Your task to perform on an android device: turn vacation reply on in the gmail app Image 0: 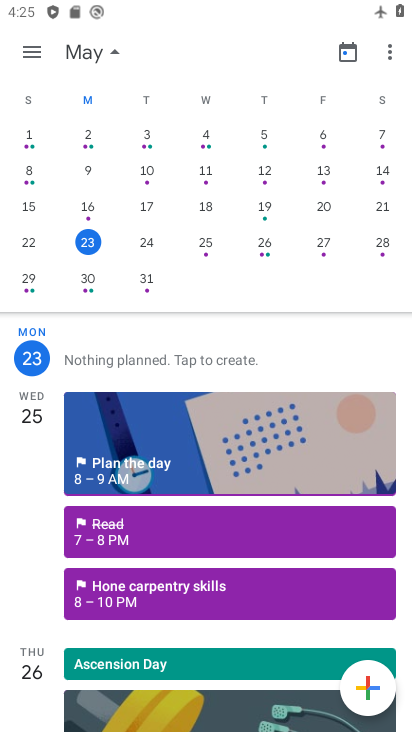
Step 0: press home button
Your task to perform on an android device: turn vacation reply on in the gmail app Image 1: 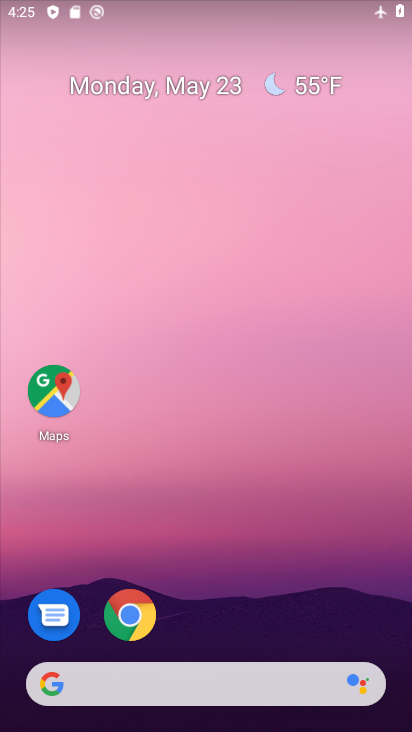
Step 1: drag from (385, 640) to (369, 579)
Your task to perform on an android device: turn vacation reply on in the gmail app Image 2: 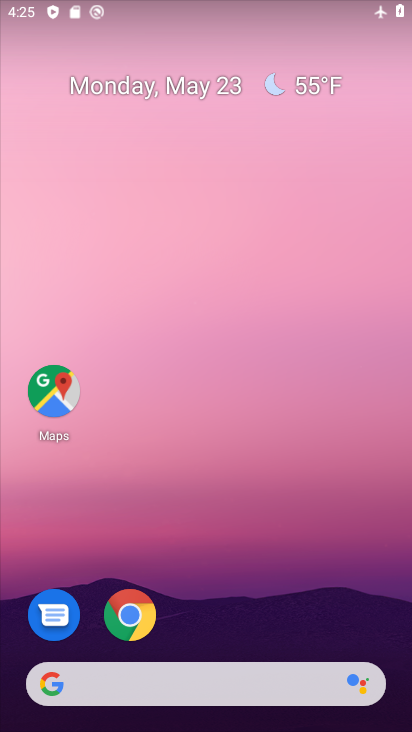
Step 2: drag from (345, 592) to (347, 190)
Your task to perform on an android device: turn vacation reply on in the gmail app Image 3: 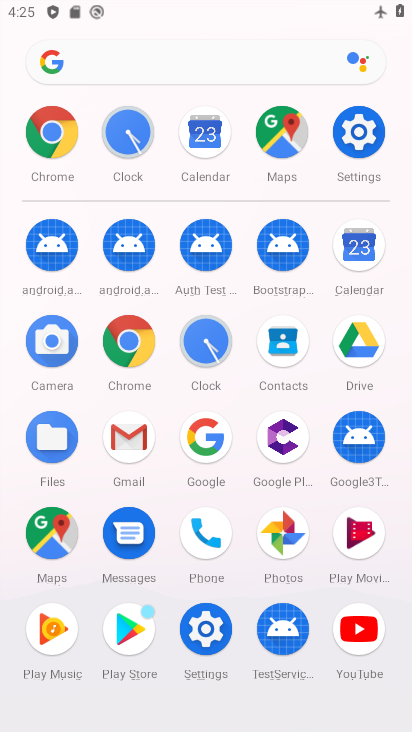
Step 3: click (125, 459)
Your task to perform on an android device: turn vacation reply on in the gmail app Image 4: 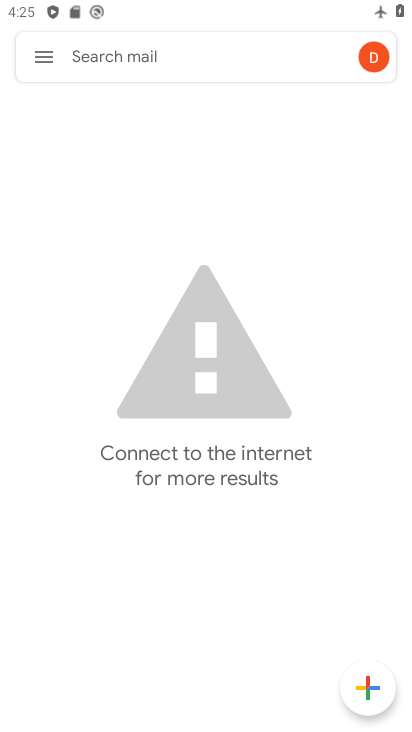
Step 4: click (42, 63)
Your task to perform on an android device: turn vacation reply on in the gmail app Image 5: 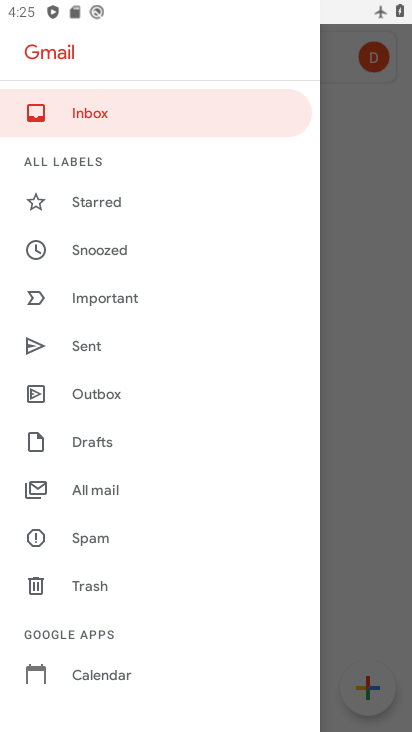
Step 5: drag from (224, 419) to (221, 332)
Your task to perform on an android device: turn vacation reply on in the gmail app Image 6: 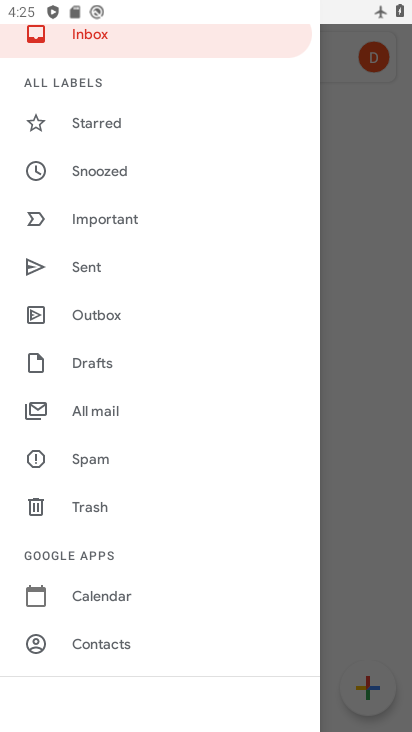
Step 6: drag from (216, 486) to (227, 390)
Your task to perform on an android device: turn vacation reply on in the gmail app Image 7: 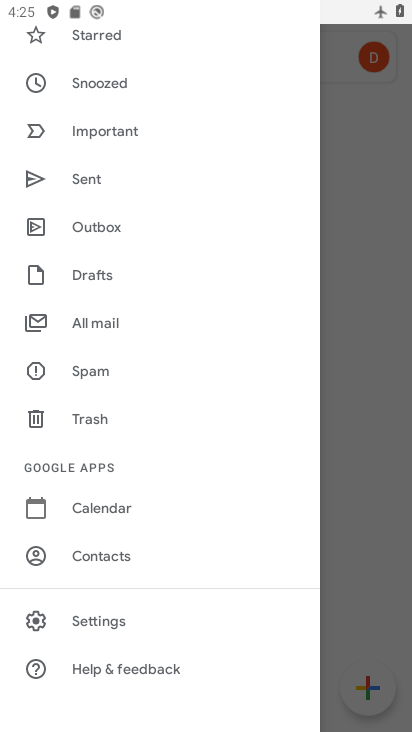
Step 7: drag from (222, 508) to (222, 411)
Your task to perform on an android device: turn vacation reply on in the gmail app Image 8: 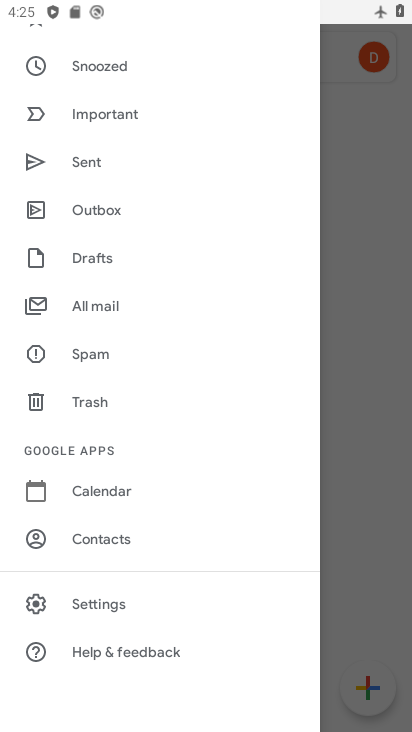
Step 8: click (127, 603)
Your task to perform on an android device: turn vacation reply on in the gmail app Image 9: 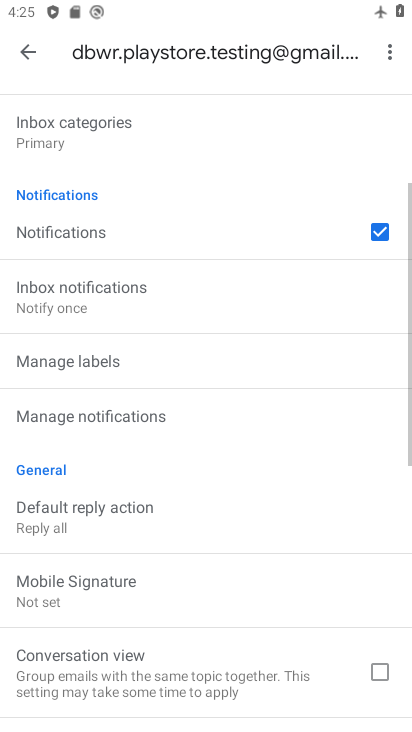
Step 9: drag from (262, 583) to (267, 500)
Your task to perform on an android device: turn vacation reply on in the gmail app Image 10: 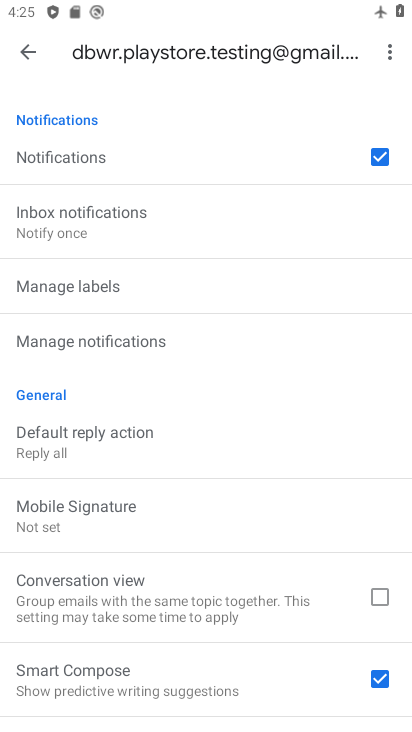
Step 10: drag from (272, 651) to (281, 540)
Your task to perform on an android device: turn vacation reply on in the gmail app Image 11: 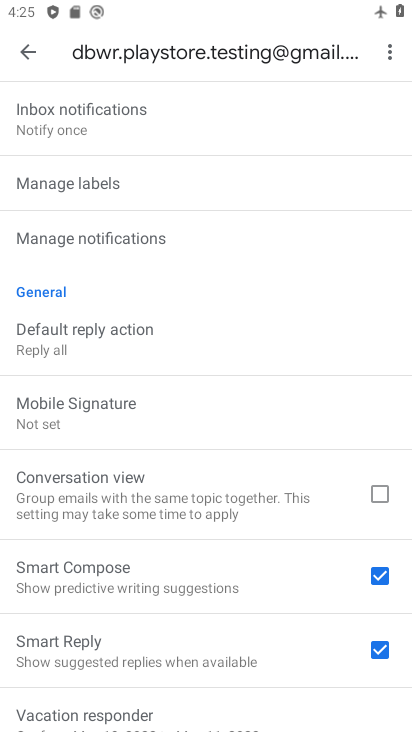
Step 11: drag from (265, 652) to (275, 560)
Your task to perform on an android device: turn vacation reply on in the gmail app Image 12: 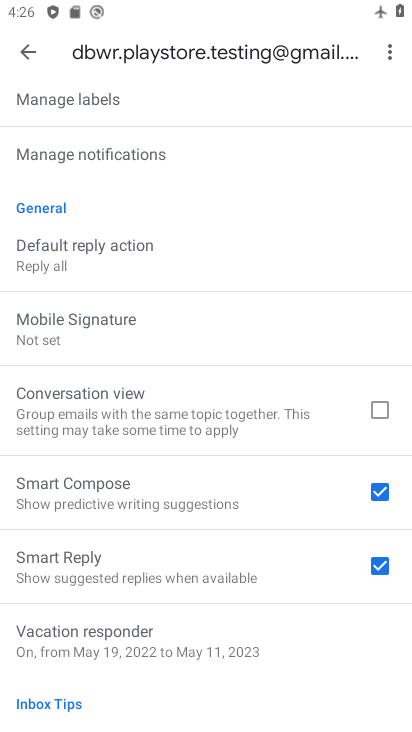
Step 12: drag from (319, 641) to (310, 544)
Your task to perform on an android device: turn vacation reply on in the gmail app Image 13: 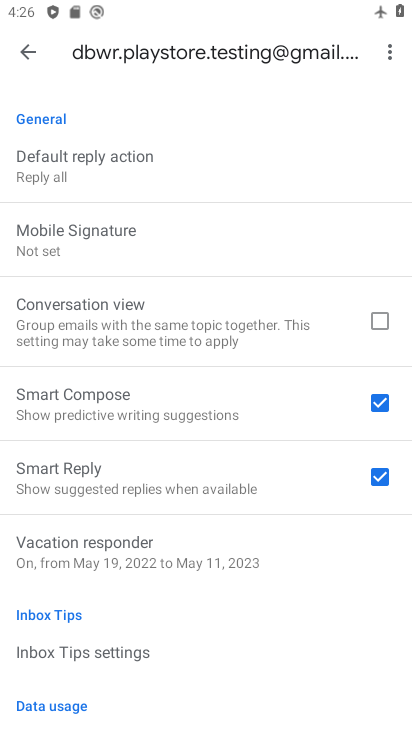
Step 13: drag from (292, 668) to (277, 536)
Your task to perform on an android device: turn vacation reply on in the gmail app Image 14: 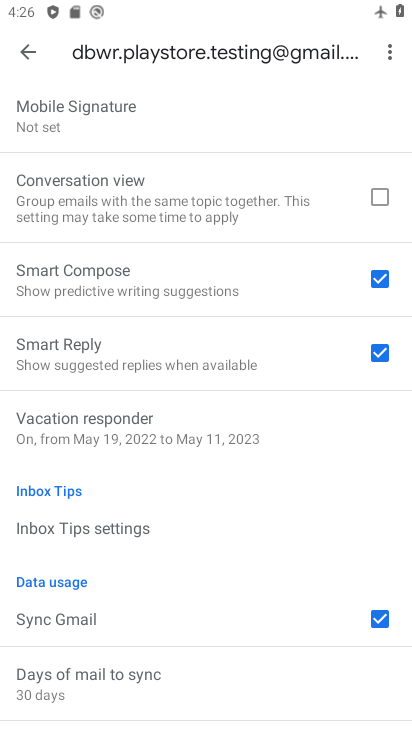
Step 14: drag from (275, 687) to (259, 480)
Your task to perform on an android device: turn vacation reply on in the gmail app Image 15: 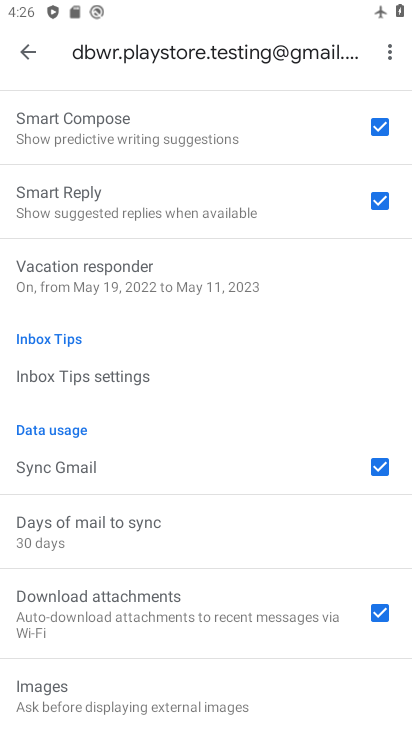
Step 15: click (216, 281)
Your task to perform on an android device: turn vacation reply on in the gmail app Image 16: 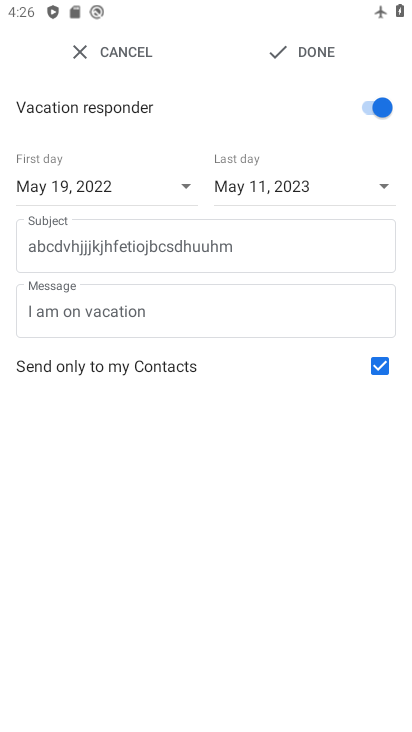
Step 16: task complete